Your task to perform on an android device: Open ESPN.com Image 0: 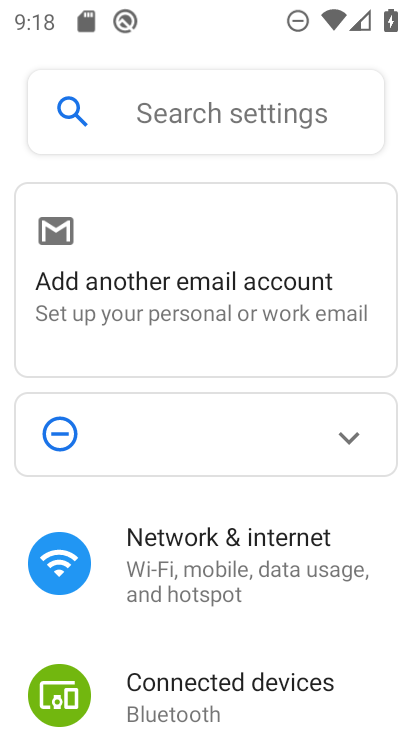
Step 0: press home button
Your task to perform on an android device: Open ESPN.com Image 1: 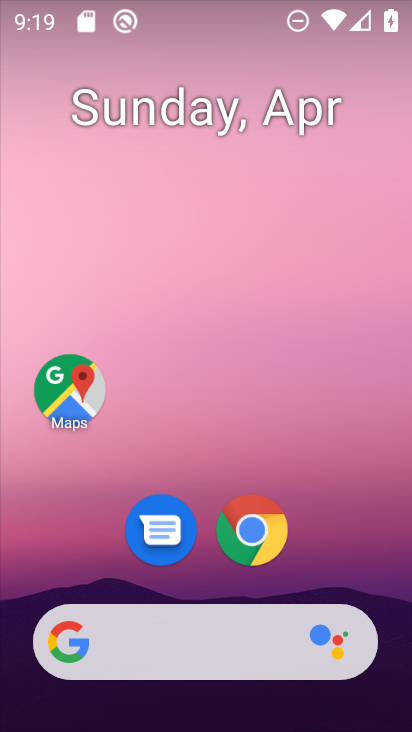
Step 1: click (248, 535)
Your task to perform on an android device: Open ESPN.com Image 2: 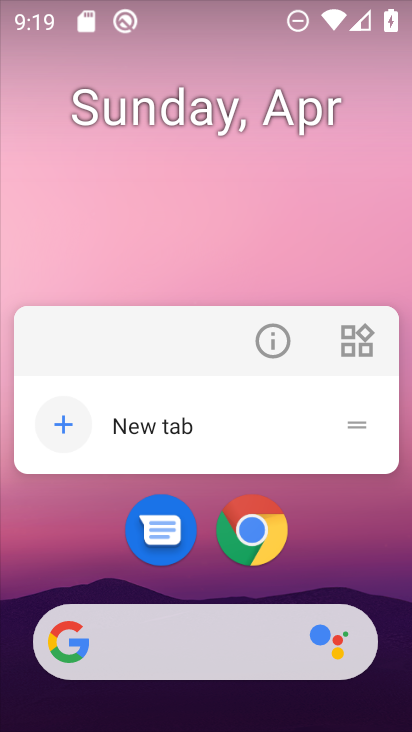
Step 2: click (253, 540)
Your task to perform on an android device: Open ESPN.com Image 3: 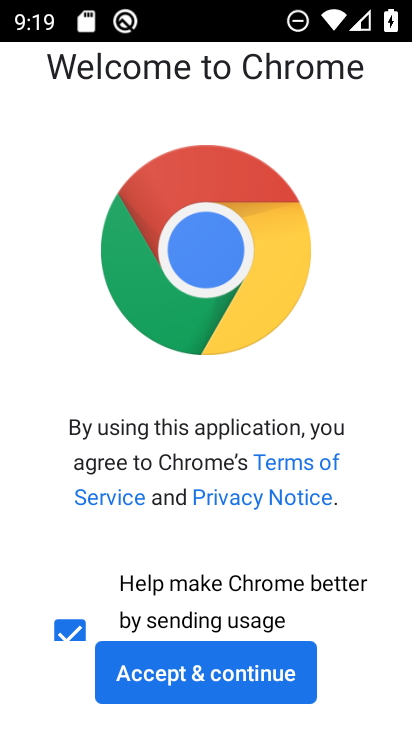
Step 3: click (198, 667)
Your task to perform on an android device: Open ESPN.com Image 4: 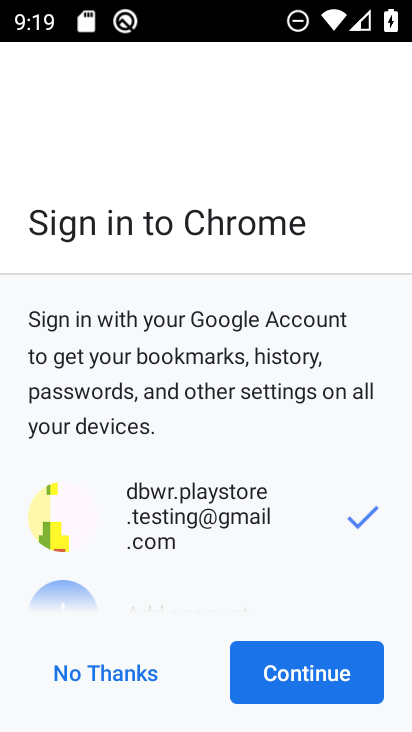
Step 4: click (124, 684)
Your task to perform on an android device: Open ESPN.com Image 5: 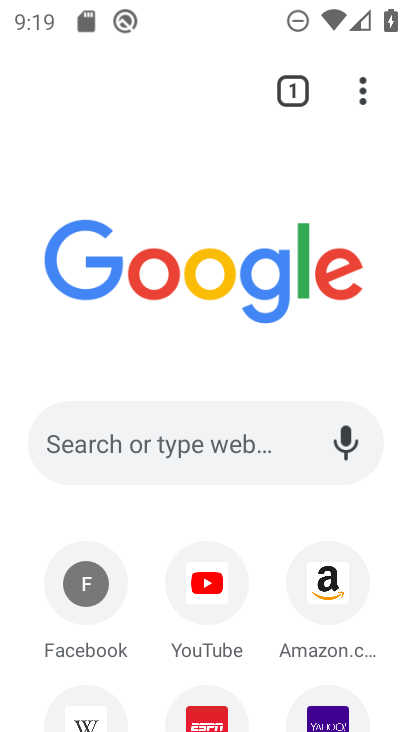
Step 5: drag from (388, 677) to (377, 495)
Your task to perform on an android device: Open ESPN.com Image 6: 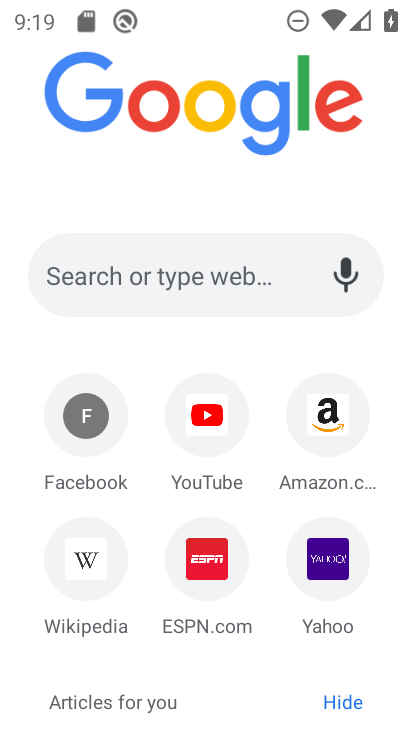
Step 6: click (212, 557)
Your task to perform on an android device: Open ESPN.com Image 7: 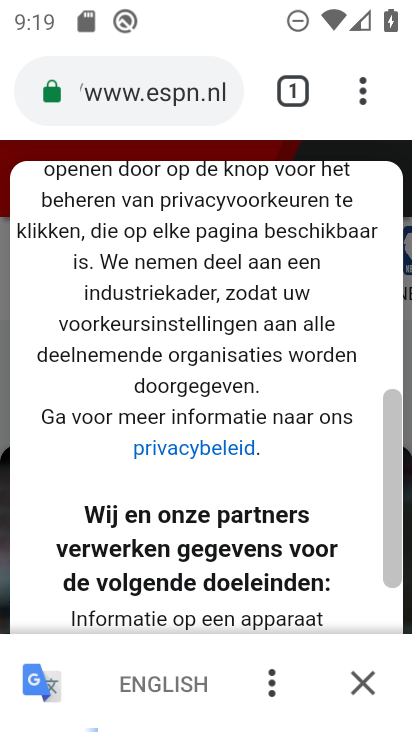
Step 7: task complete